Your task to perform on an android device: When is my next appointment? Image 0: 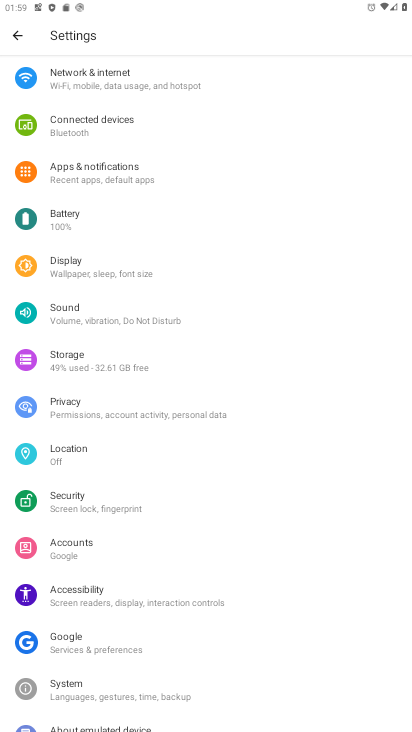
Step 0: press home button
Your task to perform on an android device: When is my next appointment? Image 1: 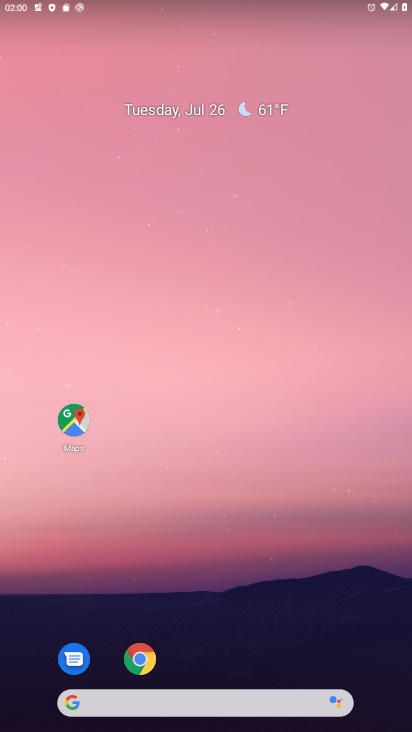
Step 1: drag from (203, 604) to (172, 59)
Your task to perform on an android device: When is my next appointment? Image 2: 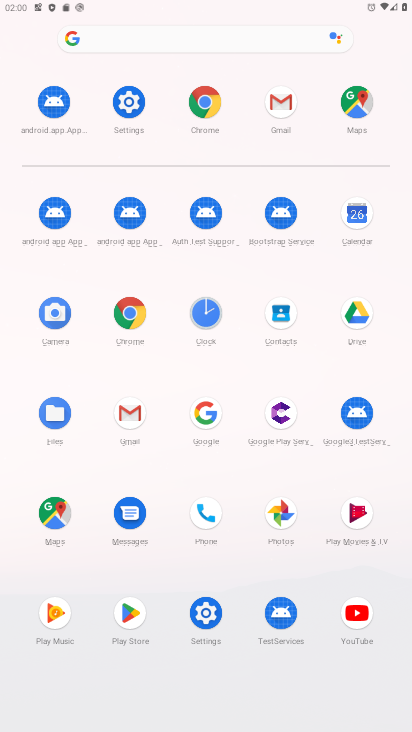
Step 2: click (359, 208)
Your task to perform on an android device: When is my next appointment? Image 3: 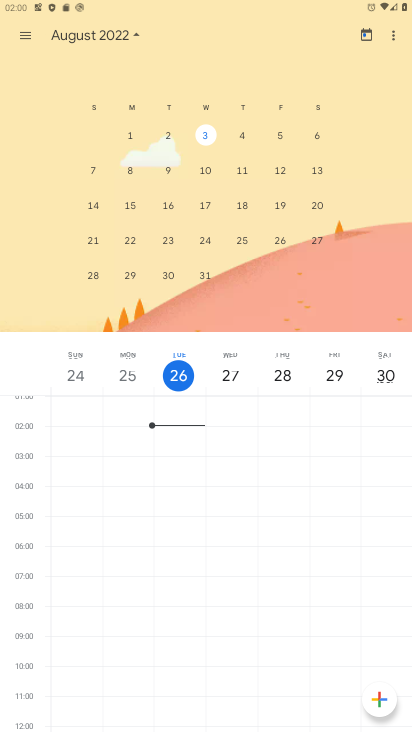
Step 3: task complete